Your task to perform on an android device: star an email in the gmail app Image 0: 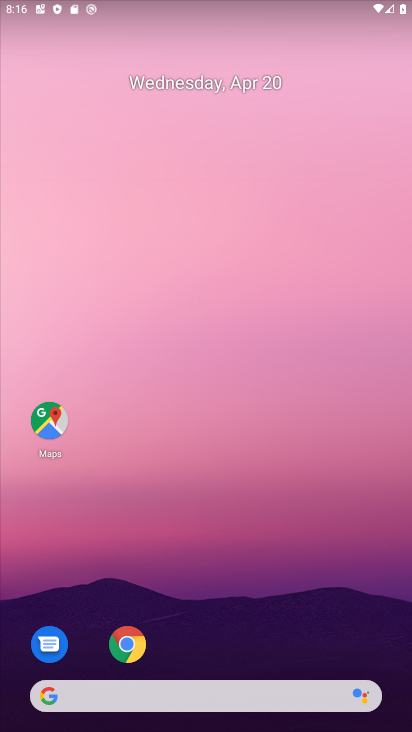
Step 0: drag from (330, 619) to (267, 83)
Your task to perform on an android device: star an email in the gmail app Image 1: 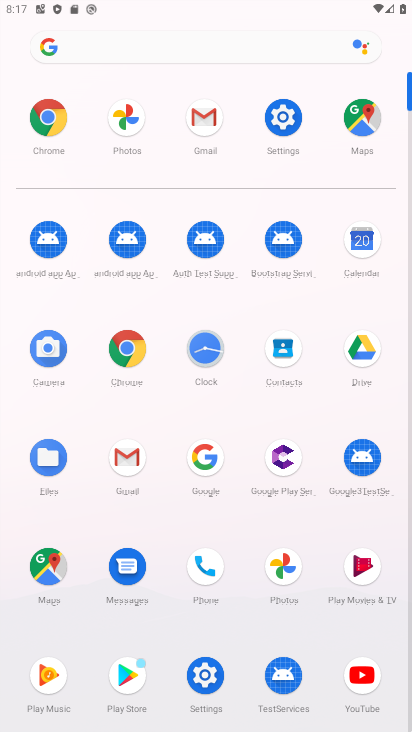
Step 1: click (128, 461)
Your task to perform on an android device: star an email in the gmail app Image 2: 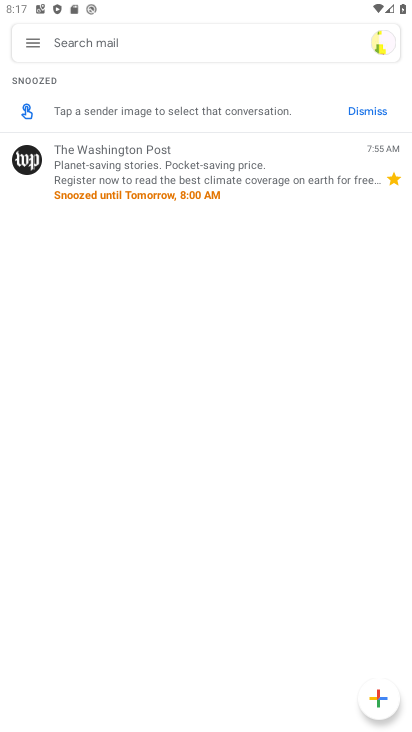
Step 2: click (389, 173)
Your task to perform on an android device: star an email in the gmail app Image 3: 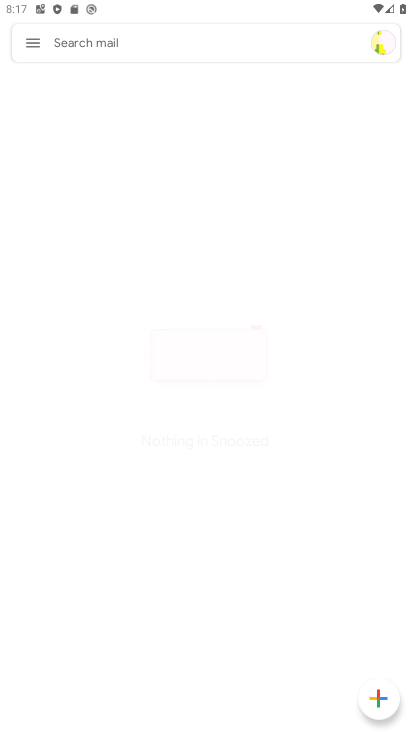
Step 3: click (393, 185)
Your task to perform on an android device: star an email in the gmail app Image 4: 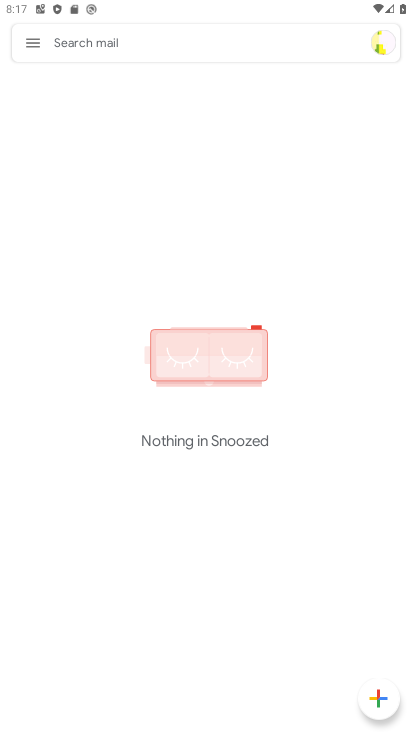
Step 4: task complete